Your task to perform on an android device: check out phone information Image 0: 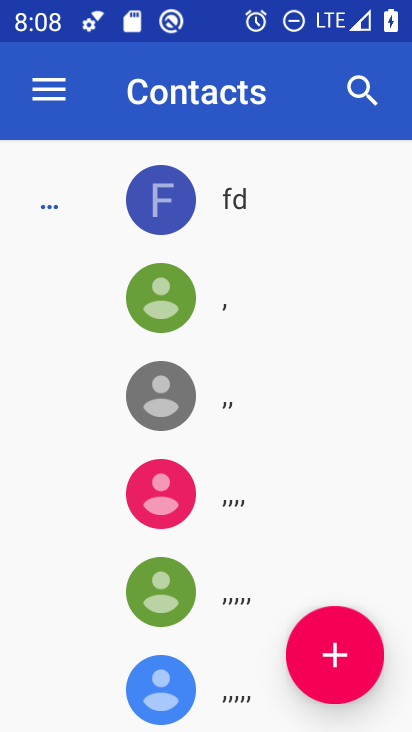
Step 0: press home button
Your task to perform on an android device: check out phone information Image 1: 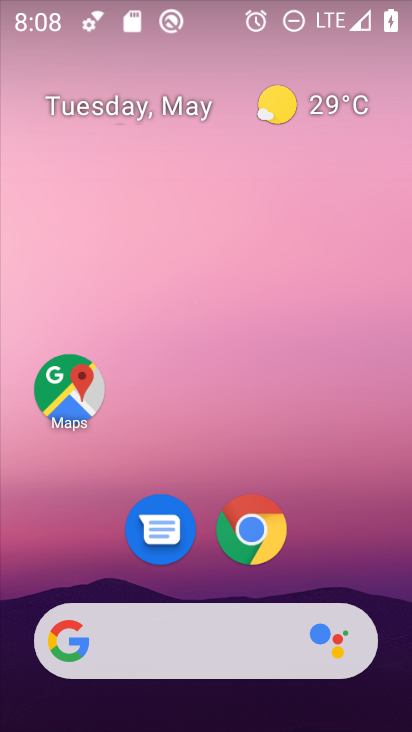
Step 1: drag from (392, 643) to (192, 83)
Your task to perform on an android device: check out phone information Image 2: 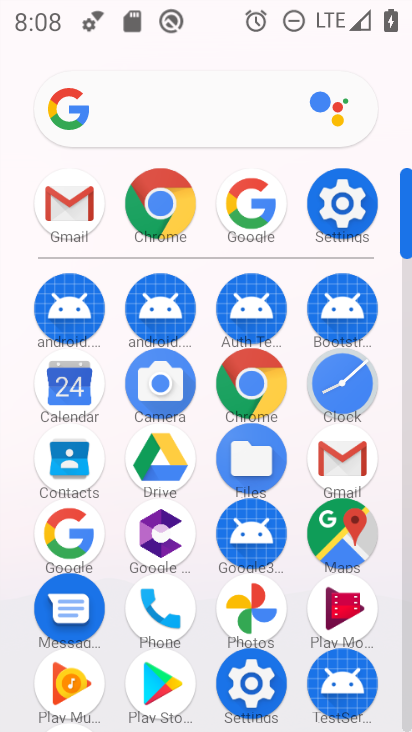
Step 2: click (357, 213)
Your task to perform on an android device: check out phone information Image 3: 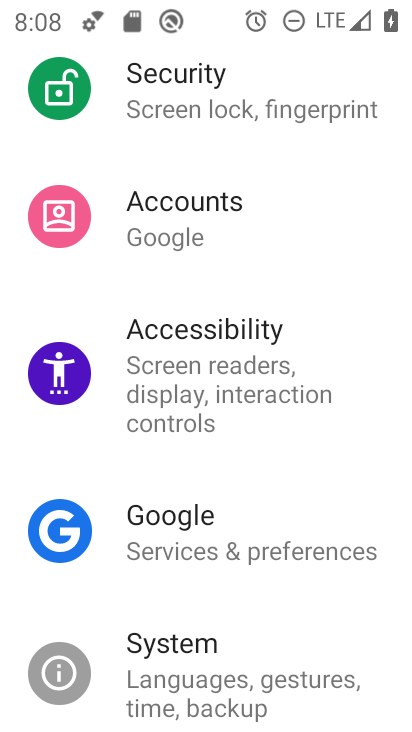
Step 3: task complete